Your task to perform on an android device: choose inbox layout in the gmail app Image 0: 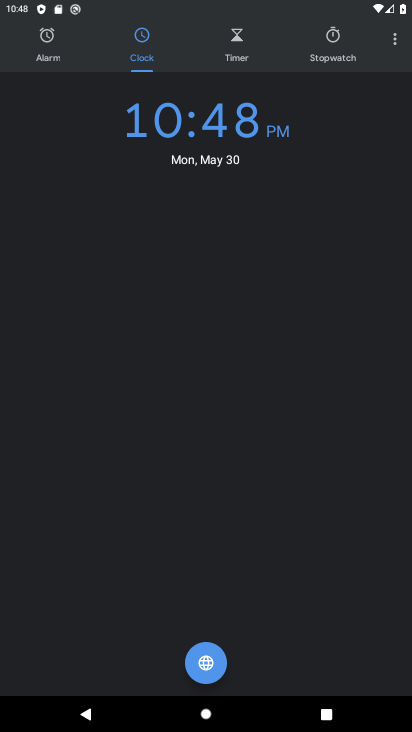
Step 0: press home button
Your task to perform on an android device: choose inbox layout in the gmail app Image 1: 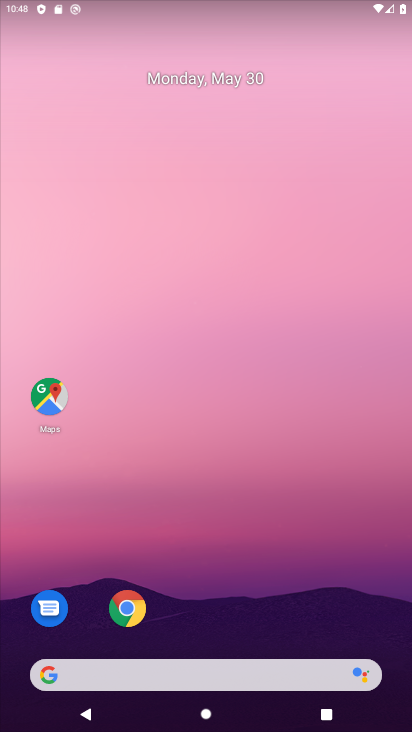
Step 1: drag from (372, 617) to (391, 15)
Your task to perform on an android device: choose inbox layout in the gmail app Image 2: 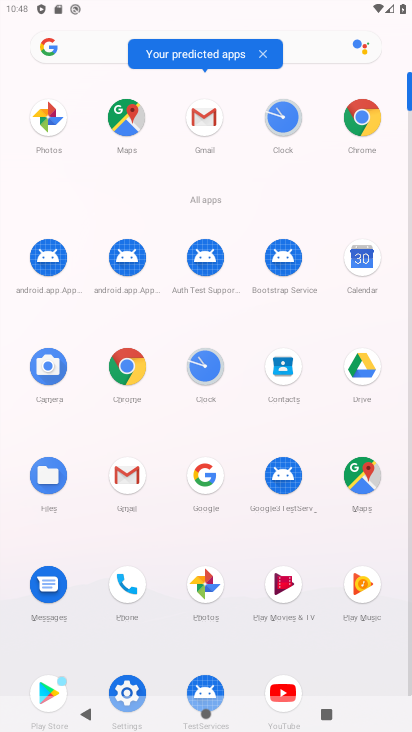
Step 2: click (203, 127)
Your task to perform on an android device: choose inbox layout in the gmail app Image 3: 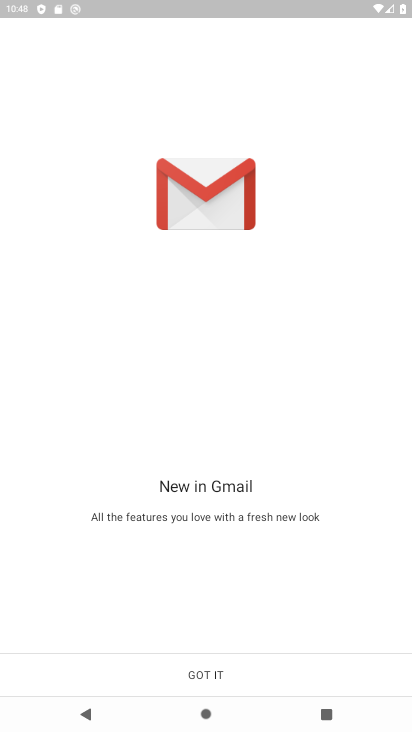
Step 3: click (202, 675)
Your task to perform on an android device: choose inbox layout in the gmail app Image 4: 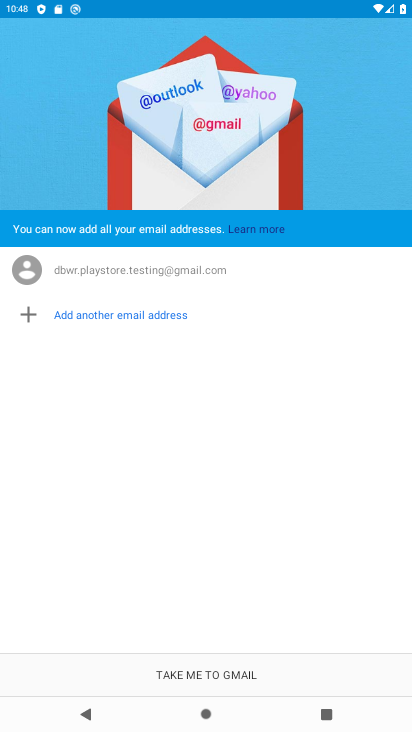
Step 4: click (202, 675)
Your task to perform on an android device: choose inbox layout in the gmail app Image 5: 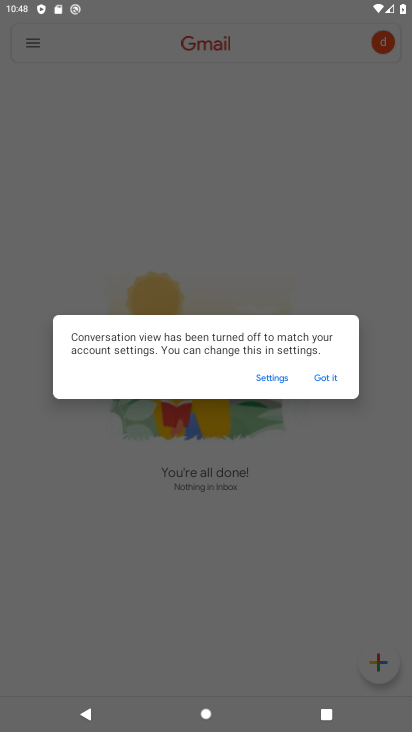
Step 5: click (321, 381)
Your task to perform on an android device: choose inbox layout in the gmail app Image 6: 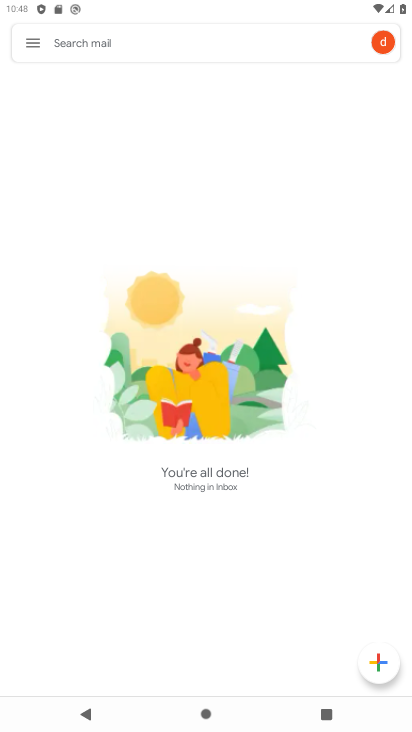
Step 6: click (28, 43)
Your task to perform on an android device: choose inbox layout in the gmail app Image 7: 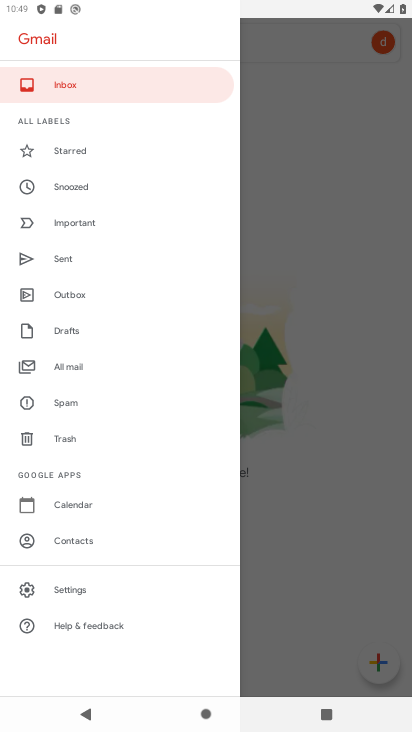
Step 7: click (72, 588)
Your task to perform on an android device: choose inbox layout in the gmail app Image 8: 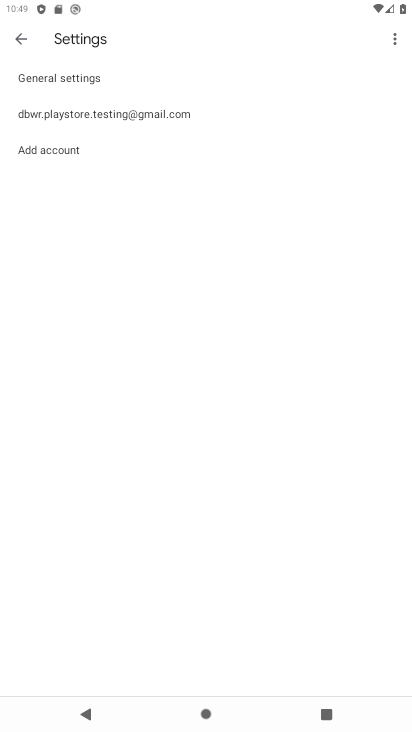
Step 8: click (67, 123)
Your task to perform on an android device: choose inbox layout in the gmail app Image 9: 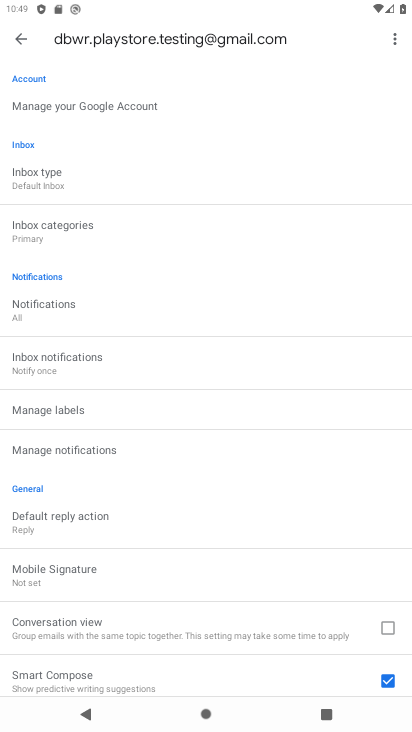
Step 9: click (42, 179)
Your task to perform on an android device: choose inbox layout in the gmail app Image 10: 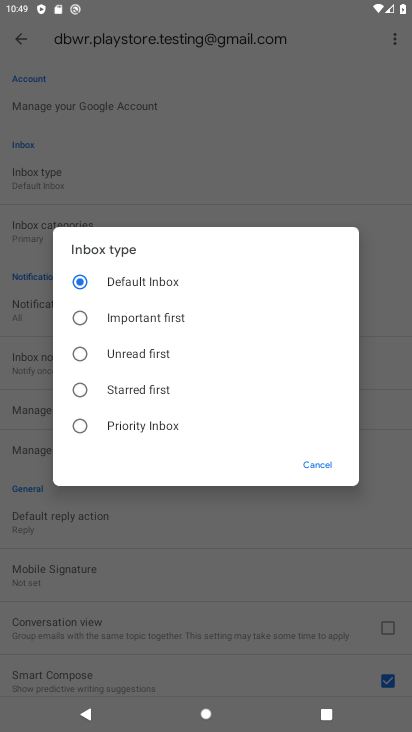
Step 10: click (80, 323)
Your task to perform on an android device: choose inbox layout in the gmail app Image 11: 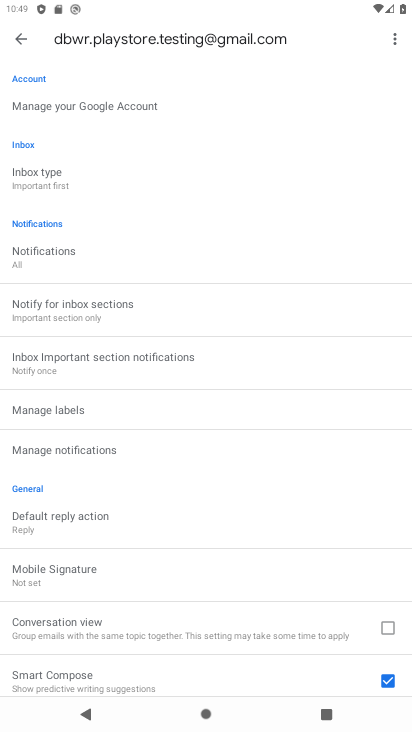
Step 11: task complete